Your task to perform on an android device: Turn off the flashlight Image 0: 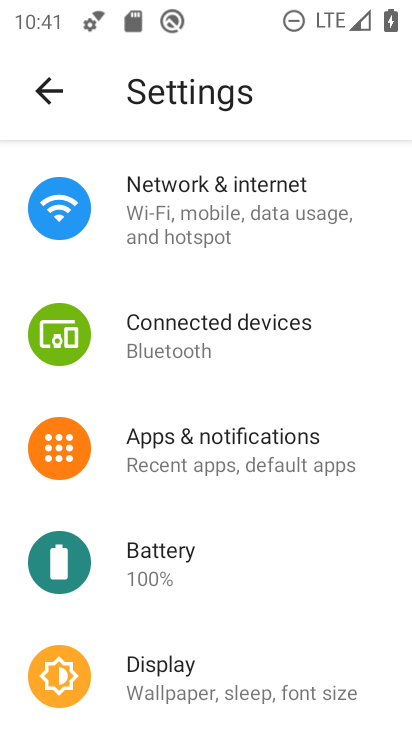
Step 0: drag from (171, 22) to (187, 551)
Your task to perform on an android device: Turn off the flashlight Image 1: 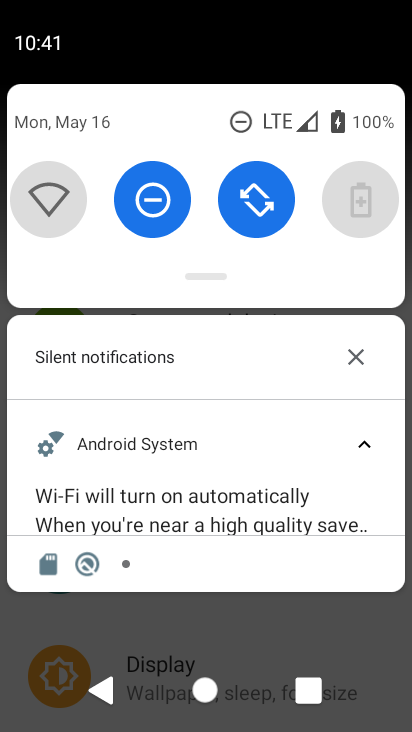
Step 1: task complete